Your task to perform on an android device: toggle show notifications on the lock screen Image 0: 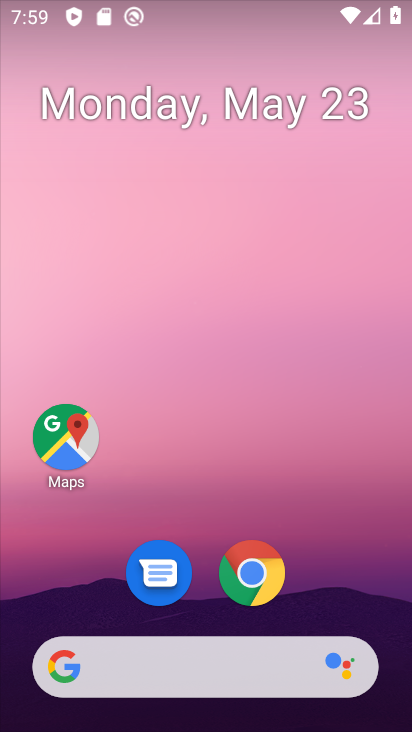
Step 0: press home button
Your task to perform on an android device: toggle show notifications on the lock screen Image 1: 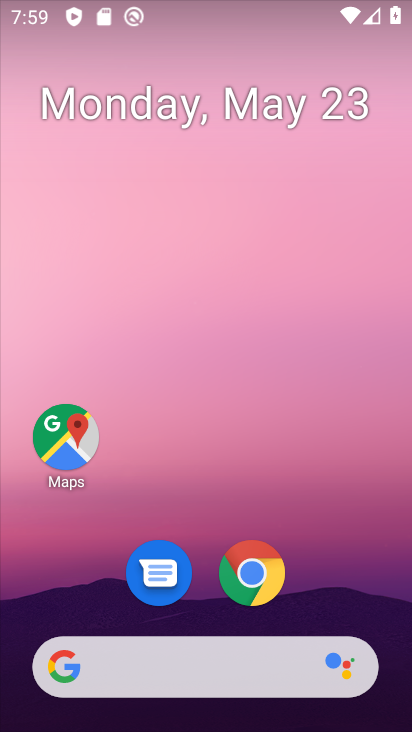
Step 1: drag from (203, 614) to (244, 117)
Your task to perform on an android device: toggle show notifications on the lock screen Image 2: 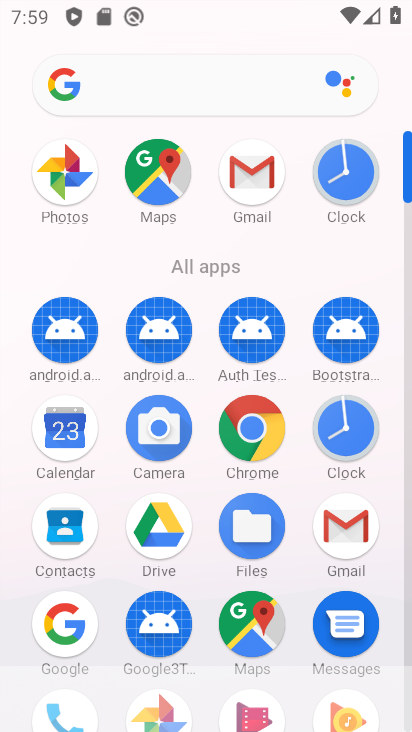
Step 2: drag from (208, 663) to (206, 191)
Your task to perform on an android device: toggle show notifications on the lock screen Image 3: 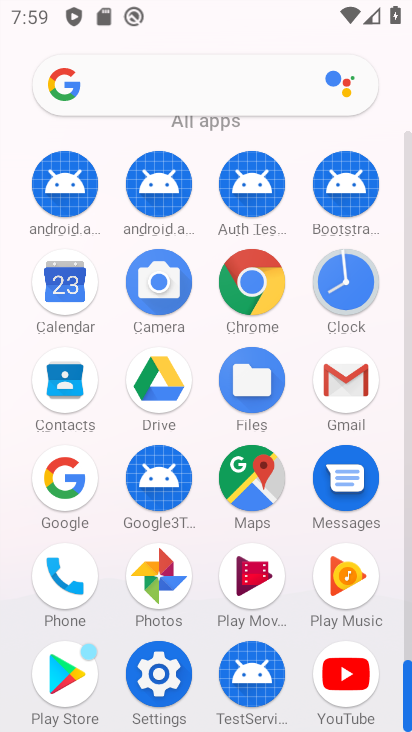
Step 3: click (151, 660)
Your task to perform on an android device: toggle show notifications on the lock screen Image 4: 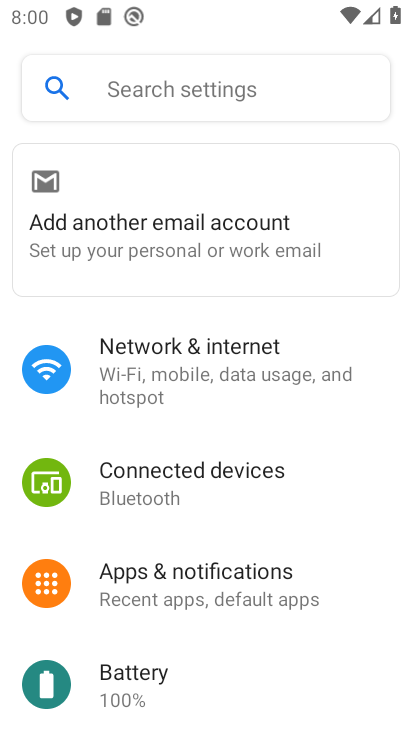
Step 4: click (175, 593)
Your task to perform on an android device: toggle show notifications on the lock screen Image 5: 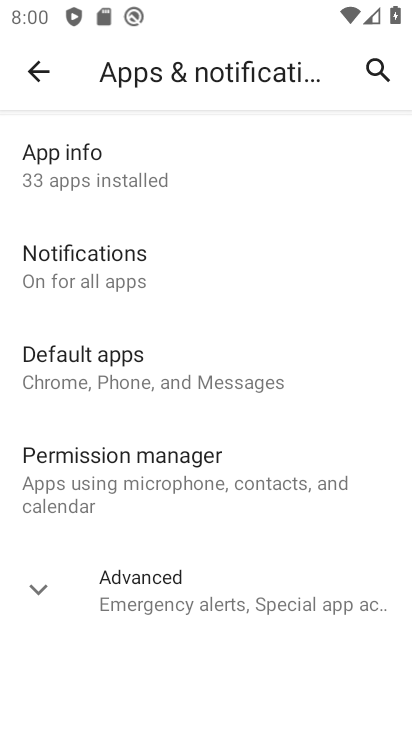
Step 5: click (76, 260)
Your task to perform on an android device: toggle show notifications on the lock screen Image 6: 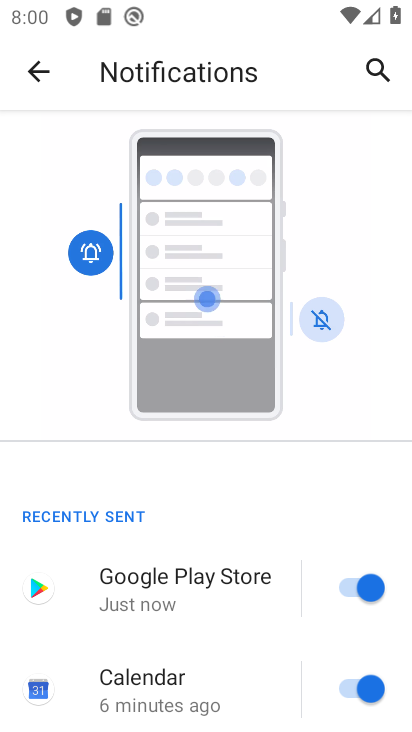
Step 6: drag from (269, 659) to (253, 202)
Your task to perform on an android device: toggle show notifications on the lock screen Image 7: 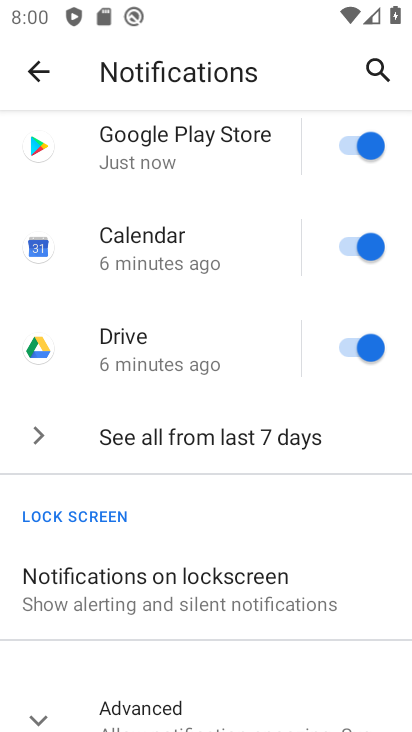
Step 7: click (186, 580)
Your task to perform on an android device: toggle show notifications on the lock screen Image 8: 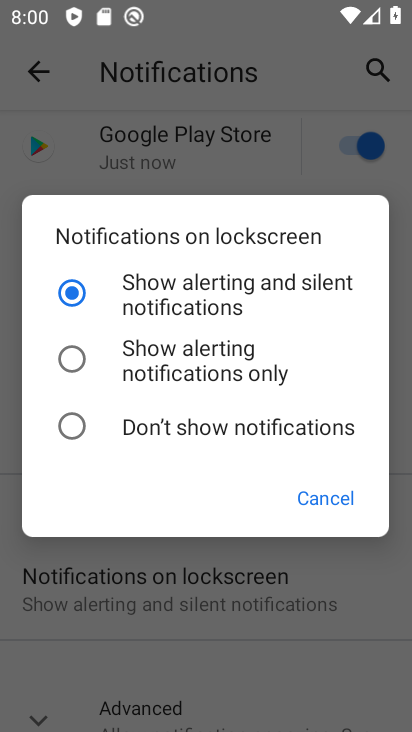
Step 8: click (67, 348)
Your task to perform on an android device: toggle show notifications on the lock screen Image 9: 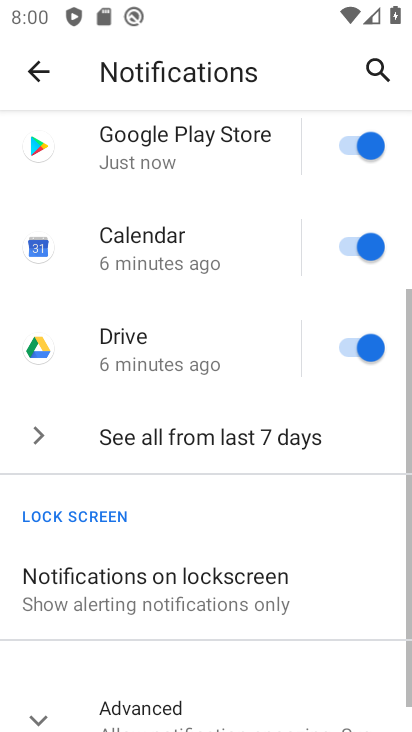
Step 9: task complete